Your task to perform on an android device: Go to battery settings Image 0: 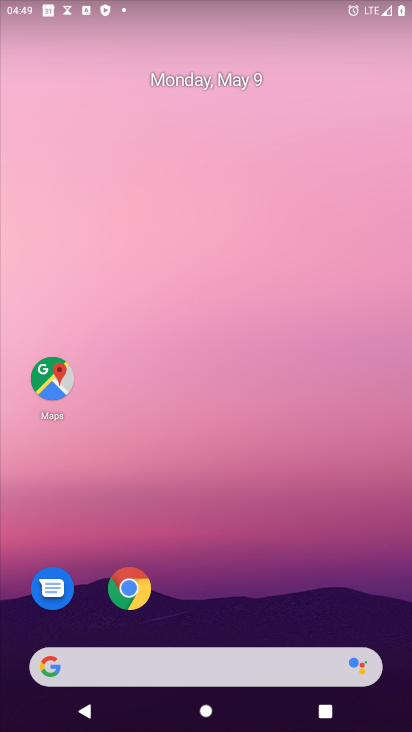
Step 0: drag from (262, 566) to (200, 123)
Your task to perform on an android device: Go to battery settings Image 1: 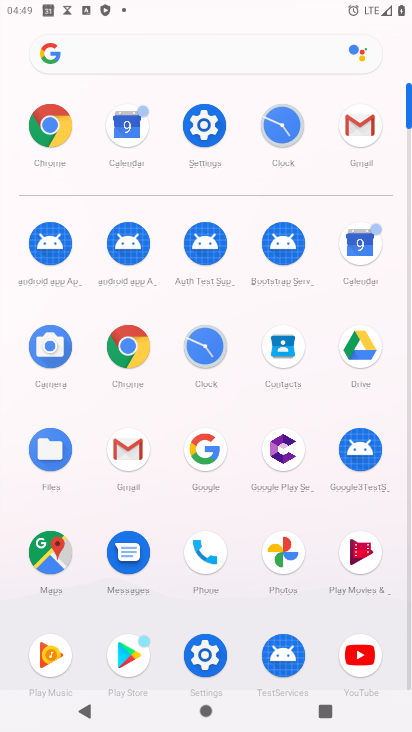
Step 1: click (191, 128)
Your task to perform on an android device: Go to battery settings Image 2: 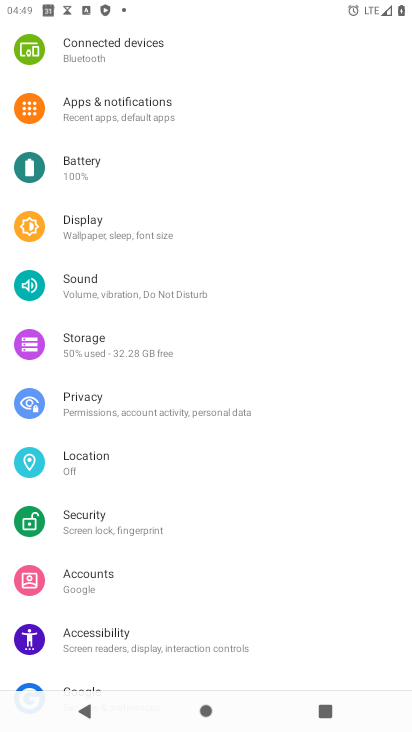
Step 2: click (129, 167)
Your task to perform on an android device: Go to battery settings Image 3: 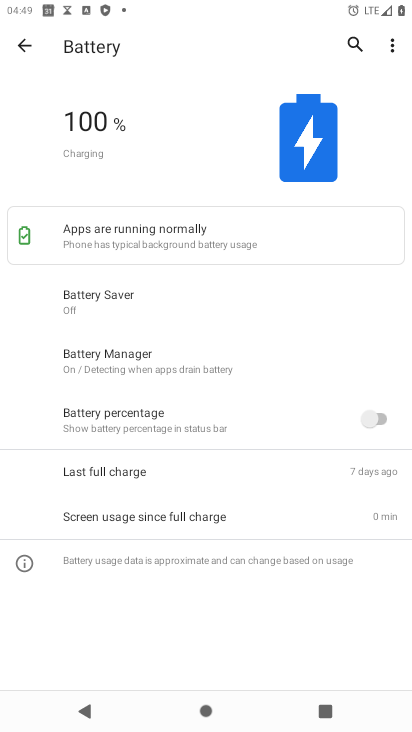
Step 3: task complete